Your task to perform on an android device: open wifi settings Image 0: 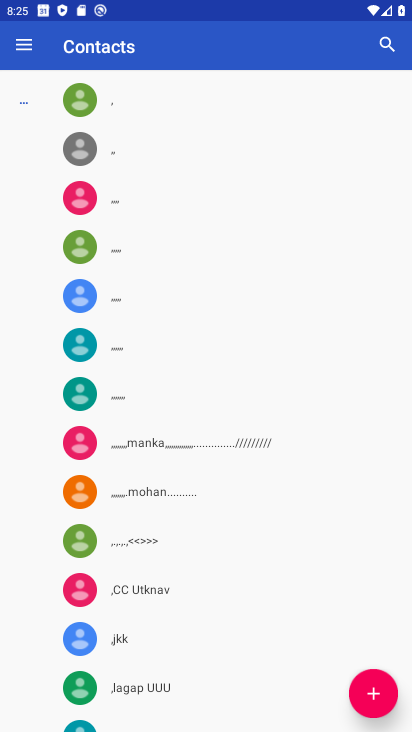
Step 0: press home button
Your task to perform on an android device: open wifi settings Image 1: 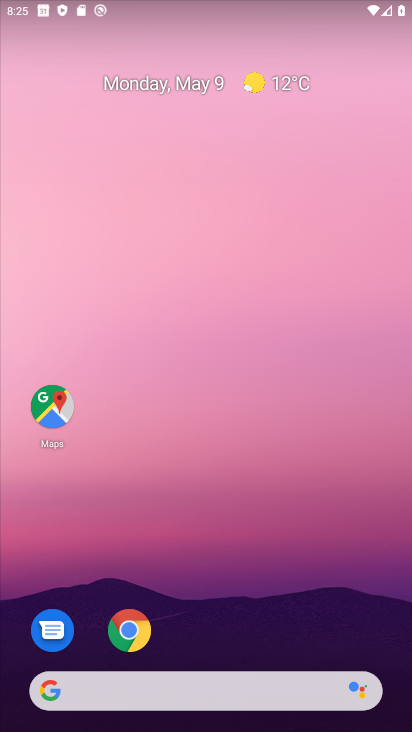
Step 1: drag from (245, 674) to (183, 265)
Your task to perform on an android device: open wifi settings Image 2: 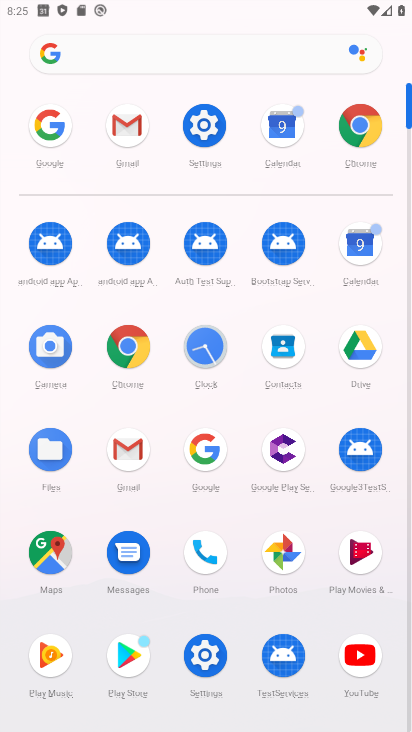
Step 2: click (193, 125)
Your task to perform on an android device: open wifi settings Image 3: 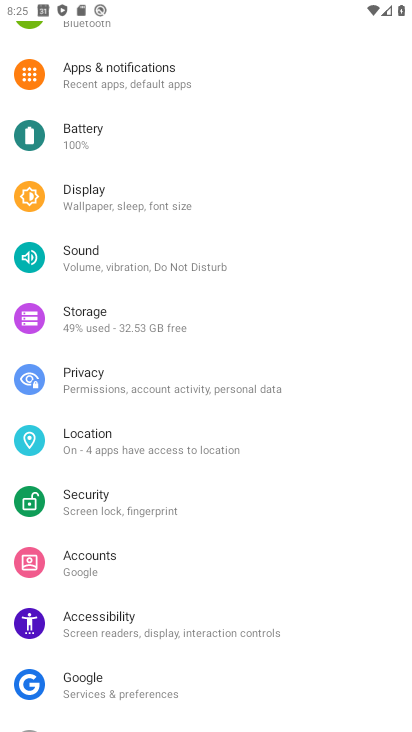
Step 3: drag from (143, 79) to (155, 424)
Your task to perform on an android device: open wifi settings Image 4: 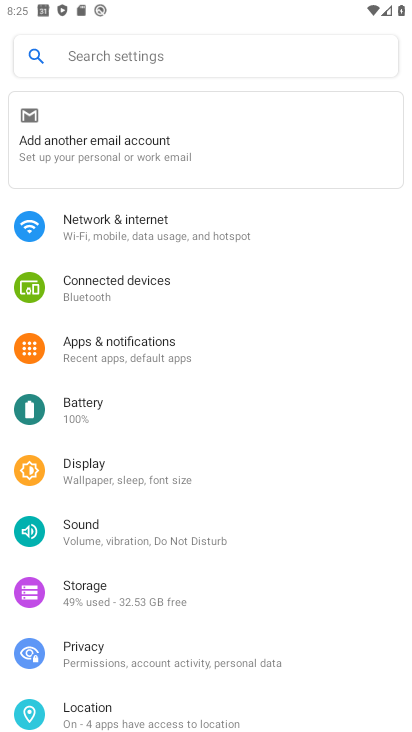
Step 4: click (123, 237)
Your task to perform on an android device: open wifi settings Image 5: 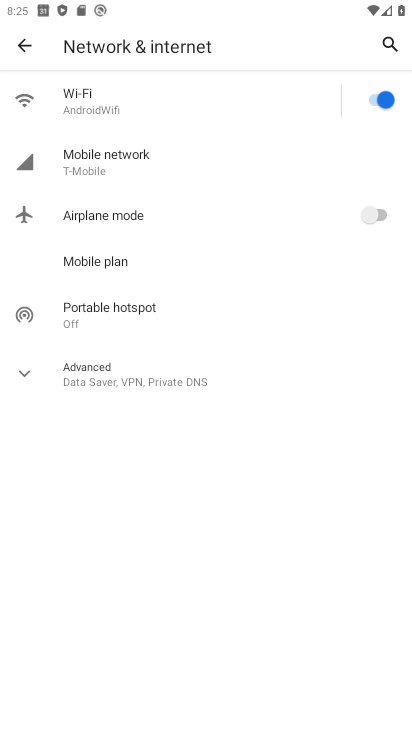
Step 5: click (89, 108)
Your task to perform on an android device: open wifi settings Image 6: 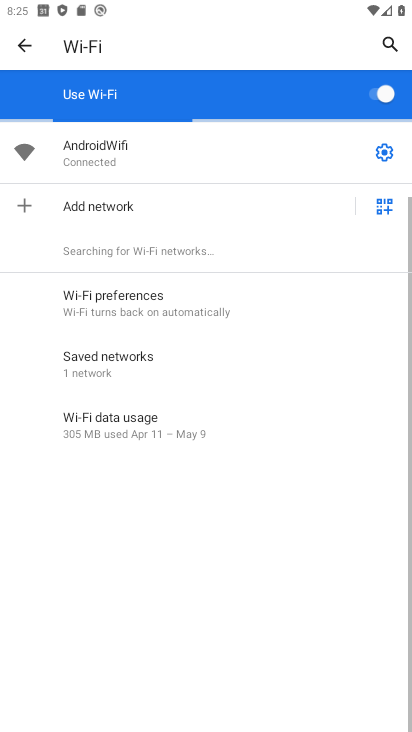
Step 6: click (381, 155)
Your task to perform on an android device: open wifi settings Image 7: 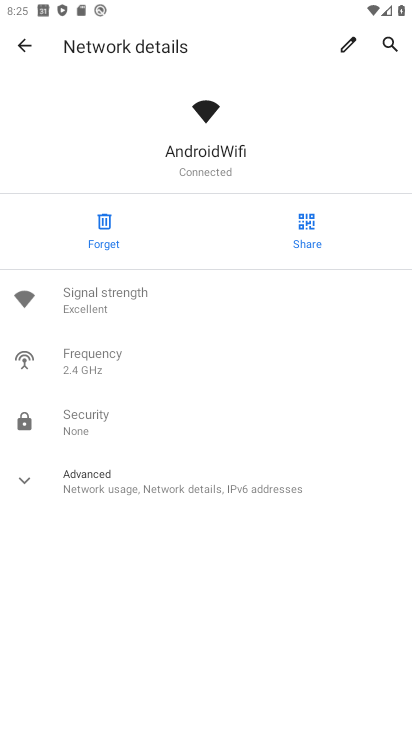
Step 7: click (132, 488)
Your task to perform on an android device: open wifi settings Image 8: 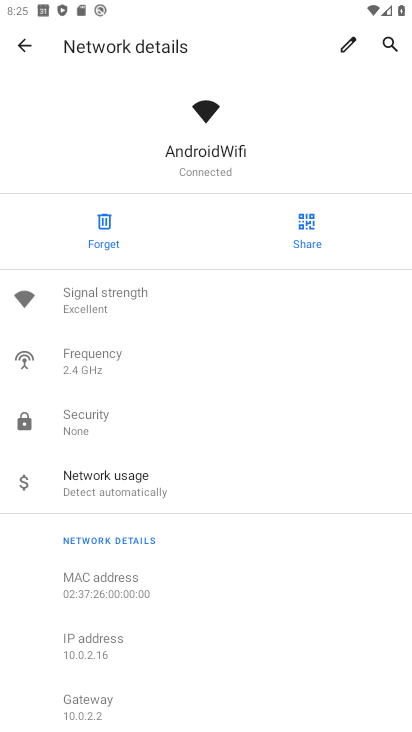
Step 8: task complete